Your task to perform on an android device: toggle notification dots Image 0: 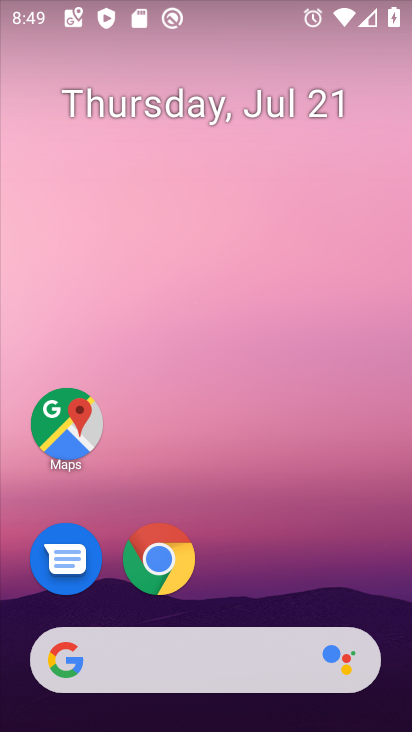
Step 0: drag from (343, 526) to (346, 73)
Your task to perform on an android device: toggle notification dots Image 1: 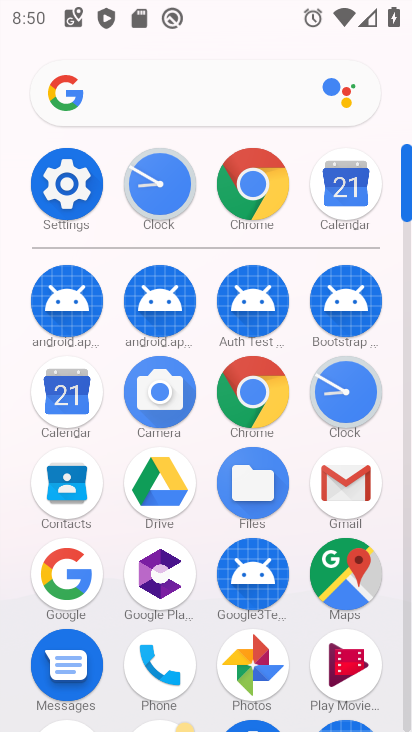
Step 1: click (76, 197)
Your task to perform on an android device: toggle notification dots Image 2: 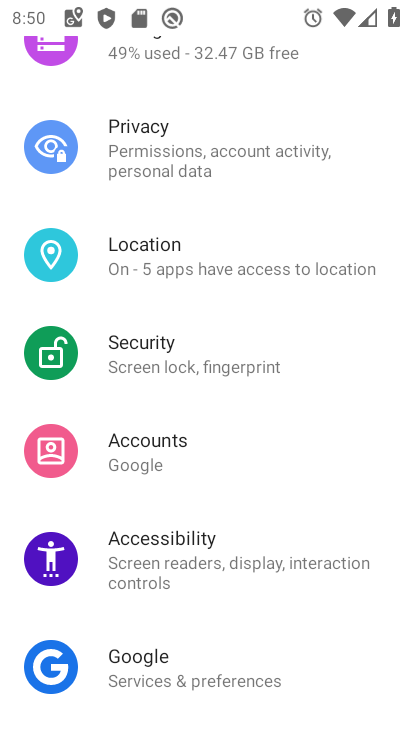
Step 2: drag from (298, 191) to (303, 281)
Your task to perform on an android device: toggle notification dots Image 3: 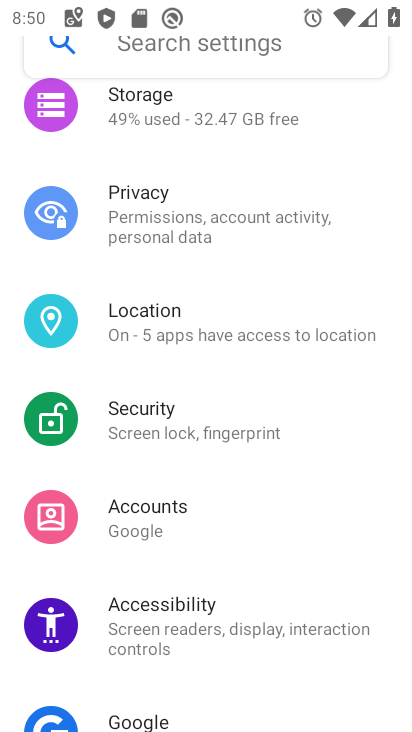
Step 3: drag from (344, 183) to (343, 268)
Your task to perform on an android device: toggle notification dots Image 4: 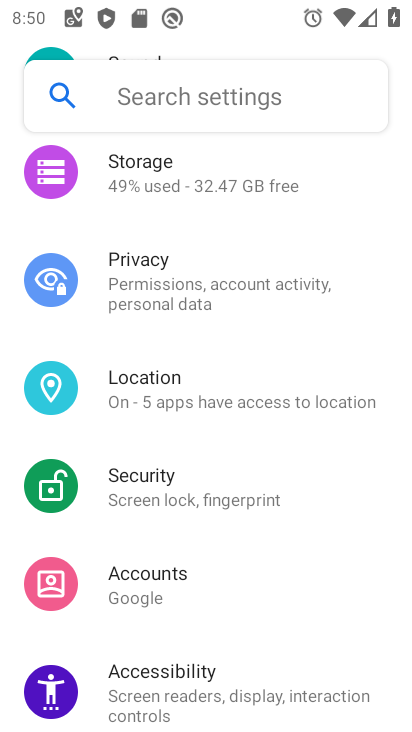
Step 4: drag from (338, 194) to (335, 267)
Your task to perform on an android device: toggle notification dots Image 5: 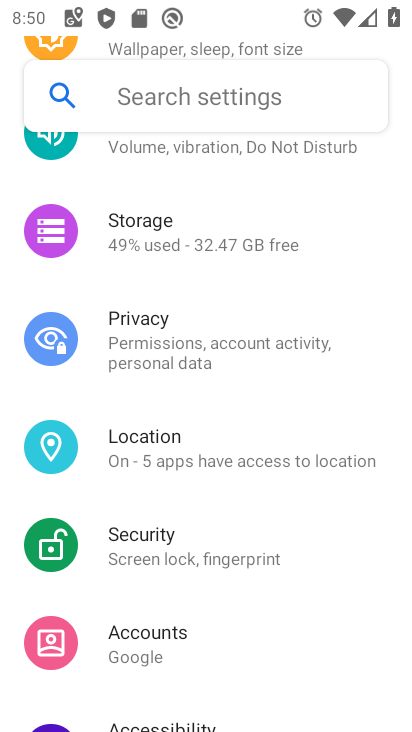
Step 5: drag from (342, 199) to (340, 274)
Your task to perform on an android device: toggle notification dots Image 6: 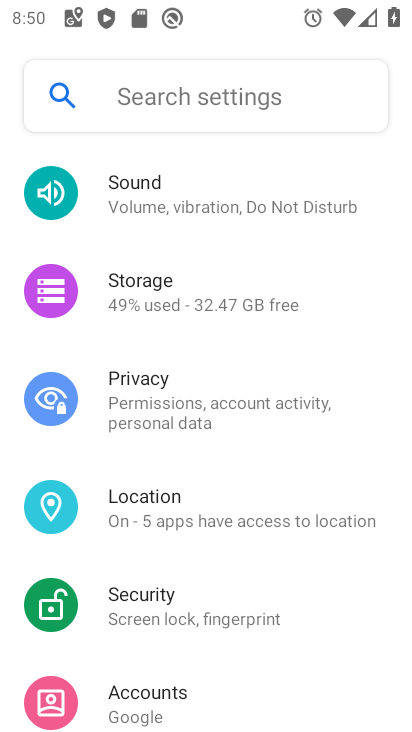
Step 6: drag from (363, 186) to (364, 288)
Your task to perform on an android device: toggle notification dots Image 7: 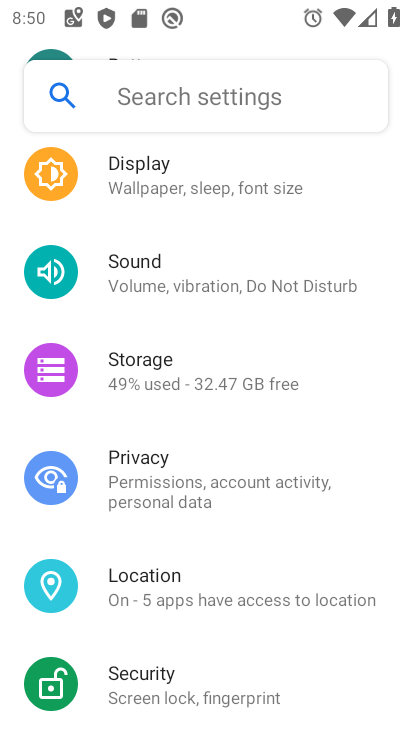
Step 7: drag from (362, 187) to (362, 280)
Your task to perform on an android device: toggle notification dots Image 8: 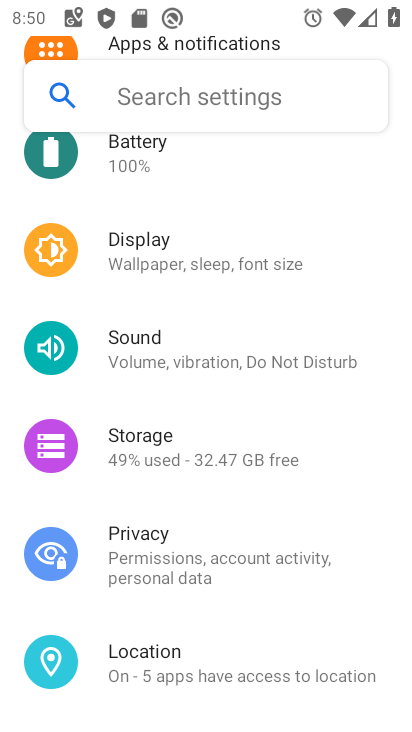
Step 8: drag from (348, 168) to (348, 270)
Your task to perform on an android device: toggle notification dots Image 9: 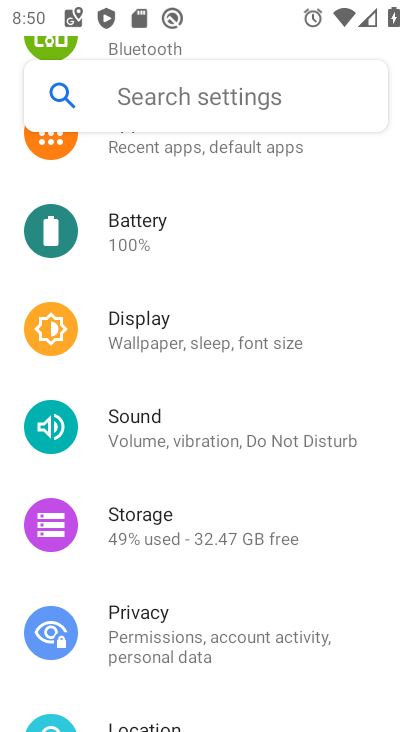
Step 9: drag from (349, 163) to (343, 269)
Your task to perform on an android device: toggle notification dots Image 10: 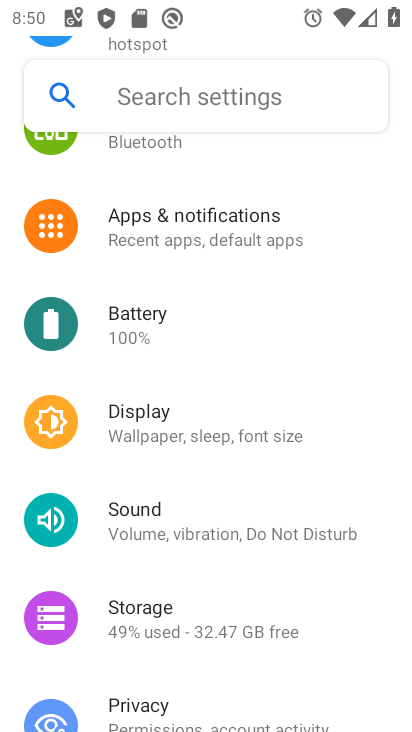
Step 10: click (305, 229)
Your task to perform on an android device: toggle notification dots Image 11: 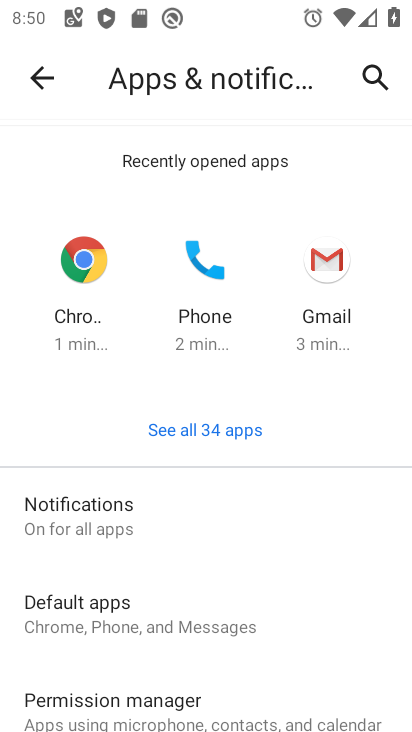
Step 11: click (209, 528)
Your task to perform on an android device: toggle notification dots Image 12: 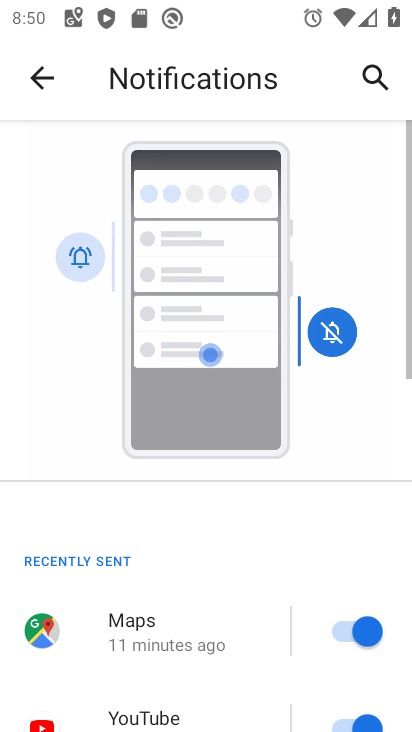
Step 12: drag from (310, 530) to (322, 449)
Your task to perform on an android device: toggle notification dots Image 13: 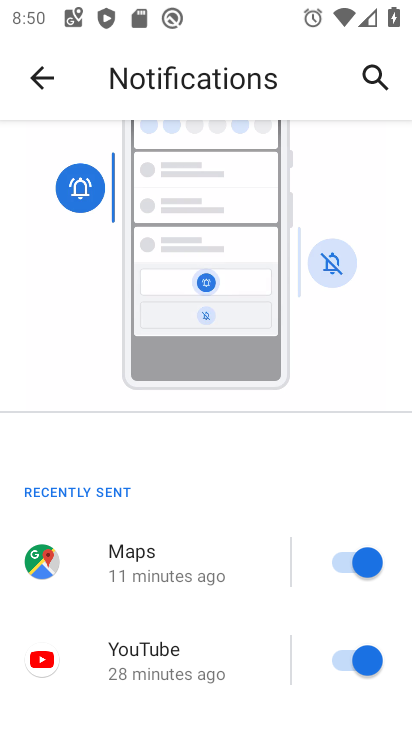
Step 13: drag from (249, 558) to (262, 473)
Your task to perform on an android device: toggle notification dots Image 14: 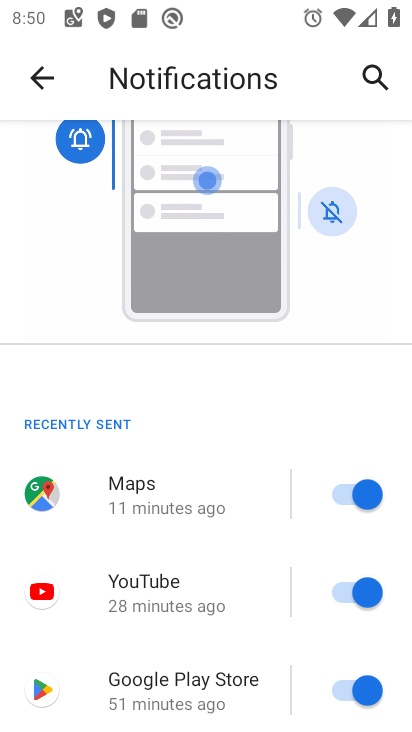
Step 14: drag from (249, 556) to (258, 460)
Your task to perform on an android device: toggle notification dots Image 15: 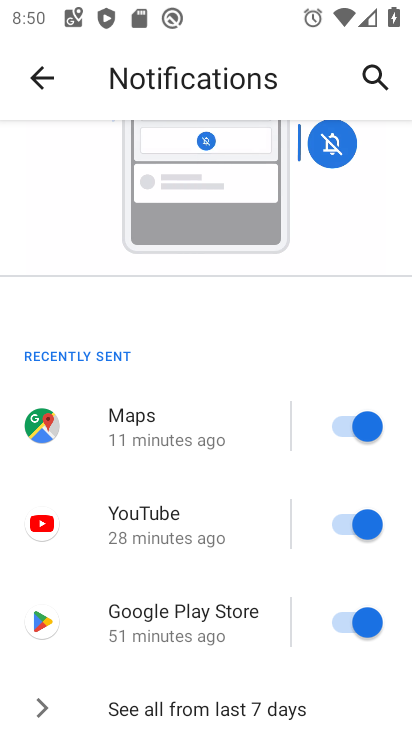
Step 15: drag from (239, 614) to (249, 504)
Your task to perform on an android device: toggle notification dots Image 16: 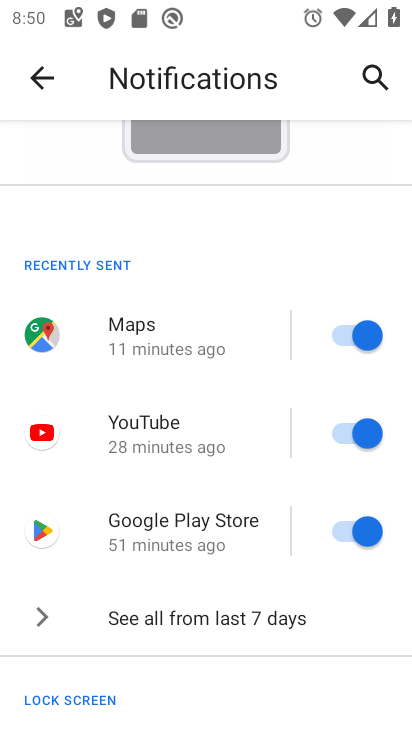
Step 16: drag from (239, 584) to (252, 495)
Your task to perform on an android device: toggle notification dots Image 17: 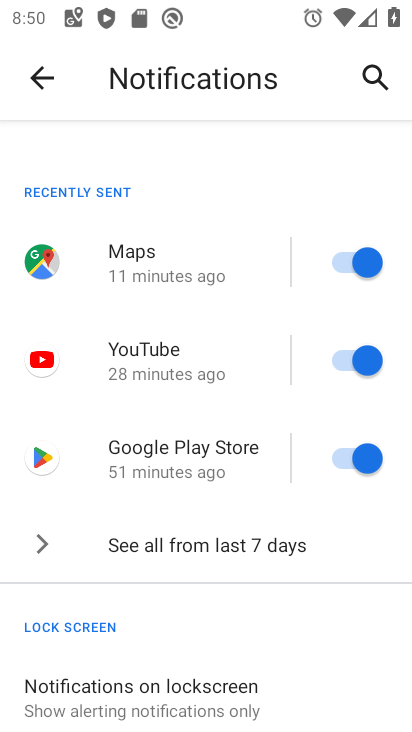
Step 17: drag from (252, 628) to (284, 421)
Your task to perform on an android device: toggle notification dots Image 18: 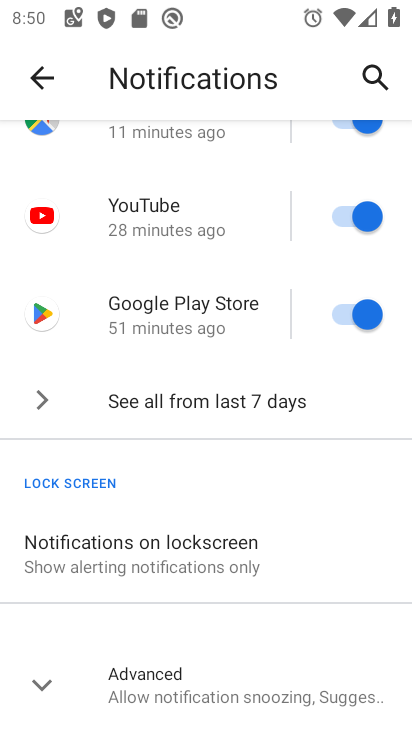
Step 18: click (282, 670)
Your task to perform on an android device: toggle notification dots Image 19: 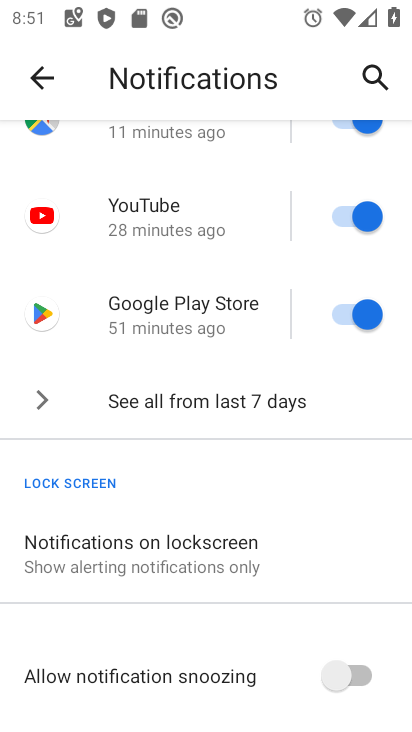
Step 19: drag from (333, 542) to (348, 477)
Your task to perform on an android device: toggle notification dots Image 20: 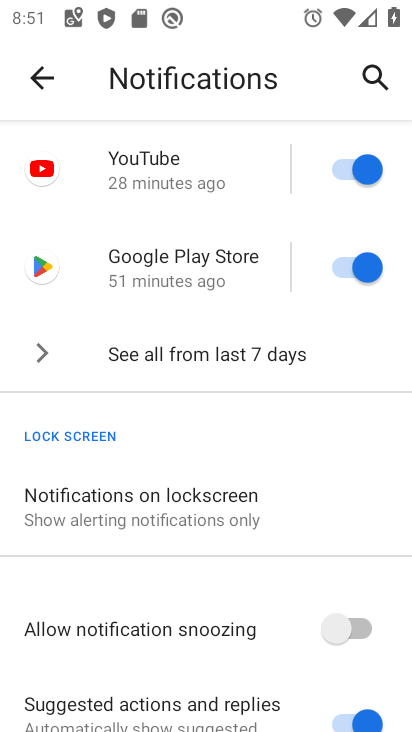
Step 20: drag from (316, 566) to (307, 470)
Your task to perform on an android device: toggle notification dots Image 21: 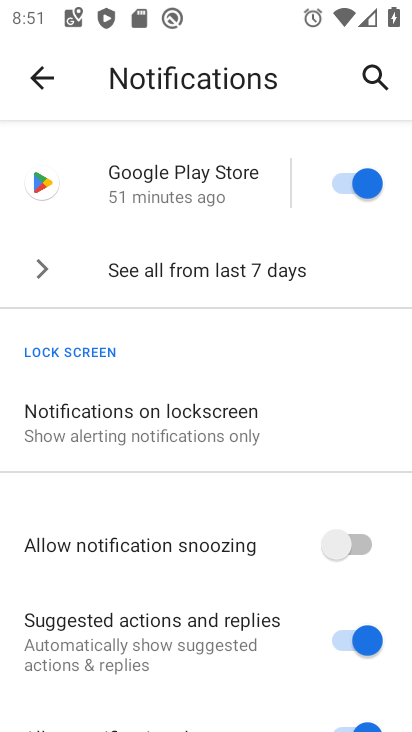
Step 21: drag from (302, 560) to (290, 464)
Your task to perform on an android device: toggle notification dots Image 22: 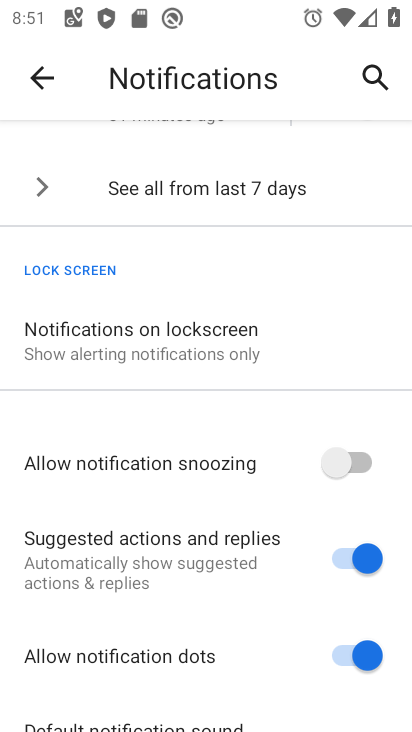
Step 22: drag from (294, 541) to (298, 351)
Your task to perform on an android device: toggle notification dots Image 23: 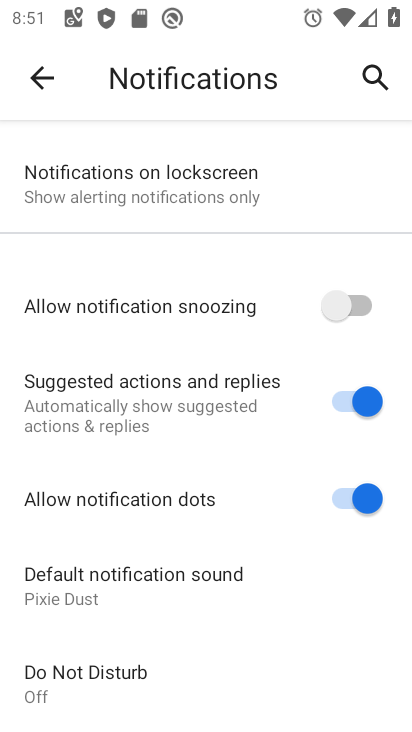
Step 23: click (375, 500)
Your task to perform on an android device: toggle notification dots Image 24: 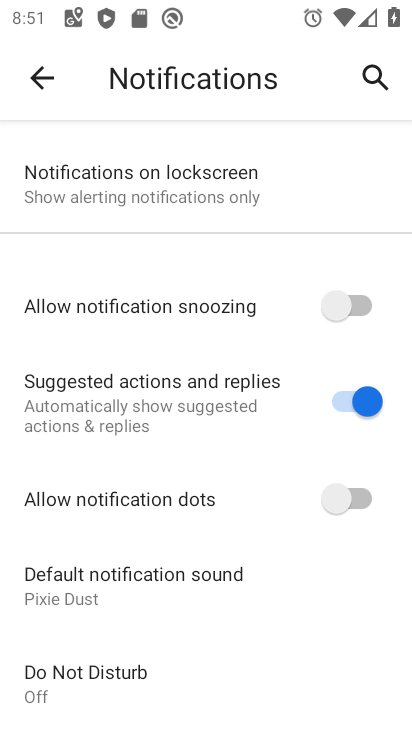
Step 24: task complete